Your task to perform on an android device: turn notification dots off Image 0: 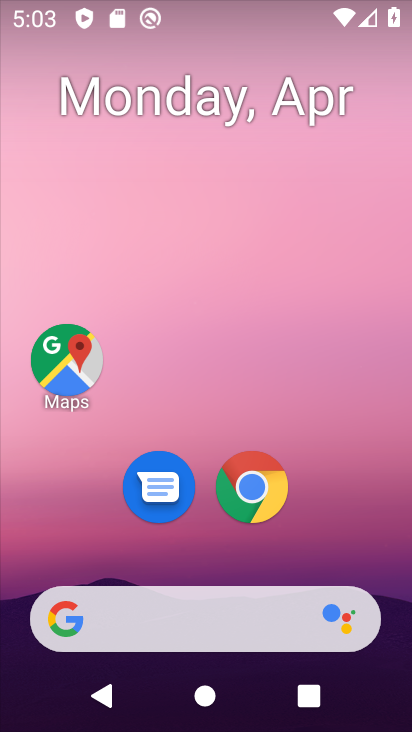
Step 0: drag from (349, 544) to (352, 104)
Your task to perform on an android device: turn notification dots off Image 1: 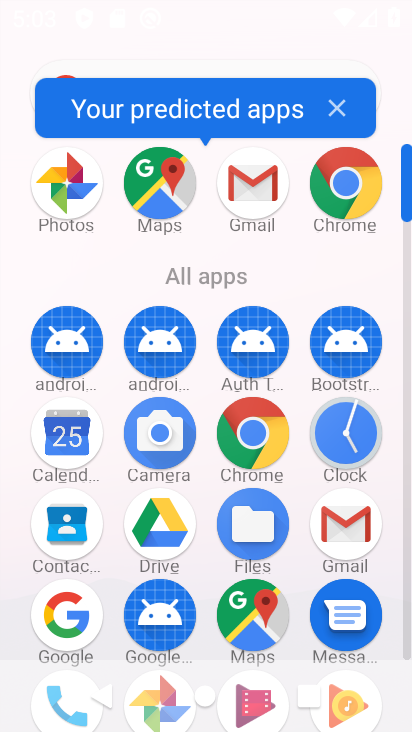
Step 1: click (408, 651)
Your task to perform on an android device: turn notification dots off Image 2: 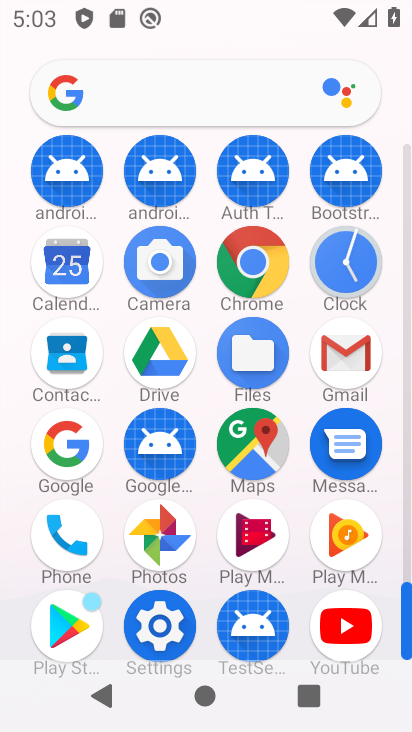
Step 2: click (166, 626)
Your task to perform on an android device: turn notification dots off Image 3: 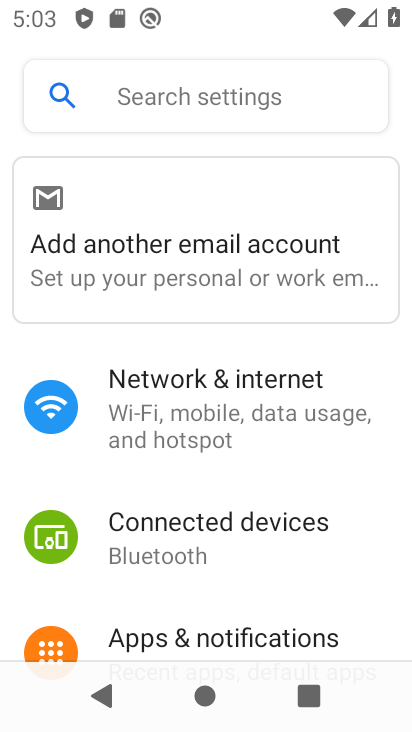
Step 3: click (296, 636)
Your task to perform on an android device: turn notification dots off Image 4: 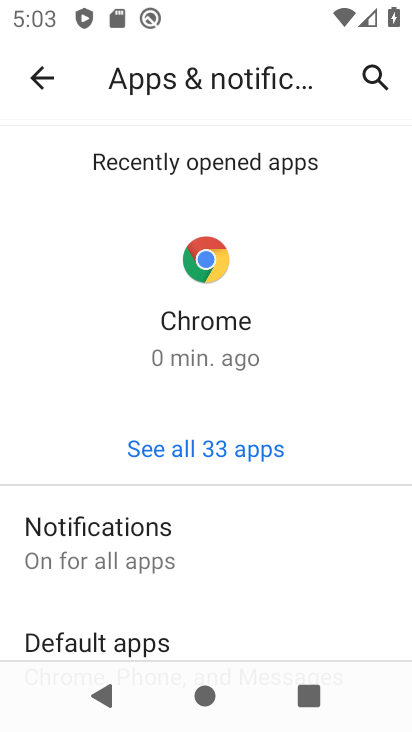
Step 4: drag from (346, 642) to (327, 230)
Your task to perform on an android device: turn notification dots off Image 5: 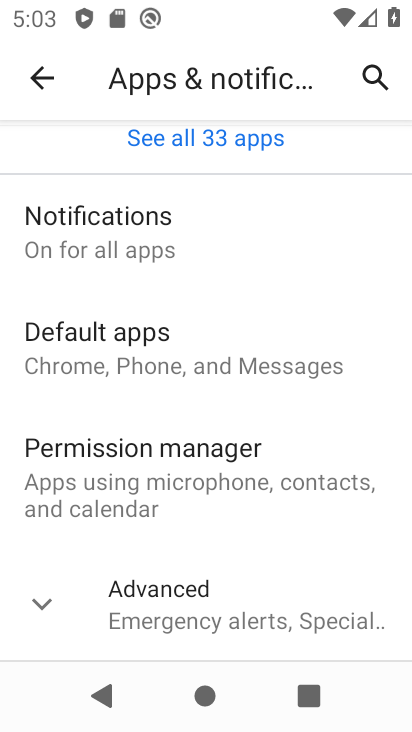
Step 5: drag from (314, 563) to (310, 338)
Your task to perform on an android device: turn notification dots off Image 6: 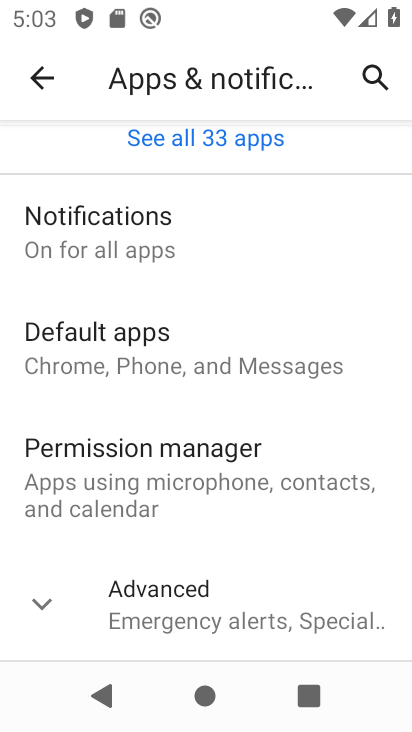
Step 6: click (238, 255)
Your task to perform on an android device: turn notification dots off Image 7: 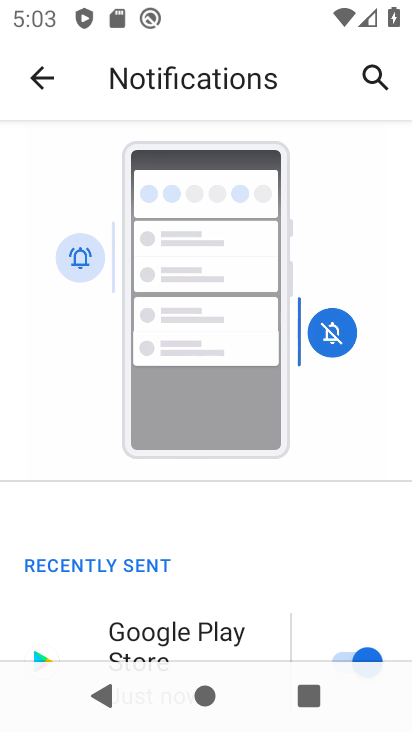
Step 7: drag from (211, 531) to (180, 56)
Your task to perform on an android device: turn notification dots off Image 8: 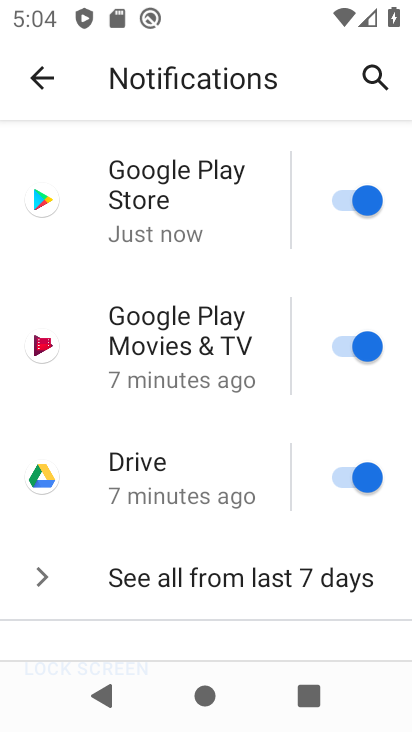
Step 8: drag from (219, 527) to (225, 33)
Your task to perform on an android device: turn notification dots off Image 9: 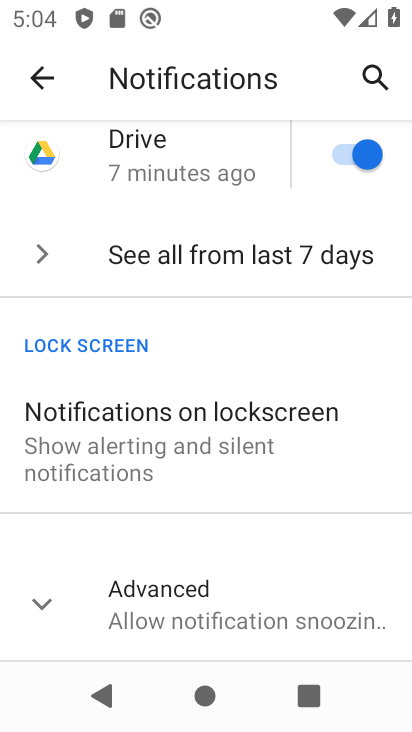
Step 9: click (260, 619)
Your task to perform on an android device: turn notification dots off Image 10: 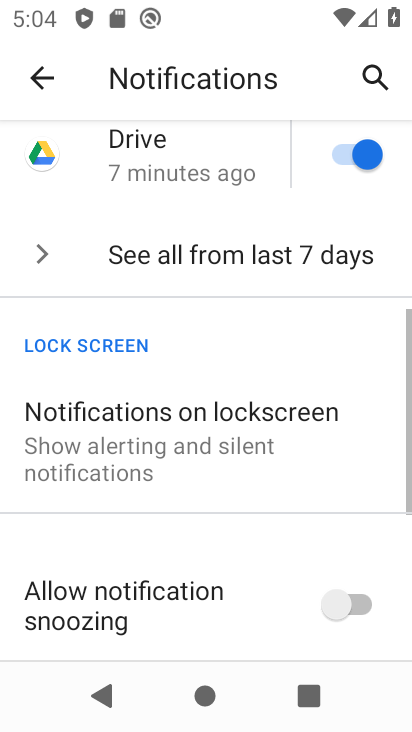
Step 10: drag from (264, 536) to (238, 71)
Your task to perform on an android device: turn notification dots off Image 11: 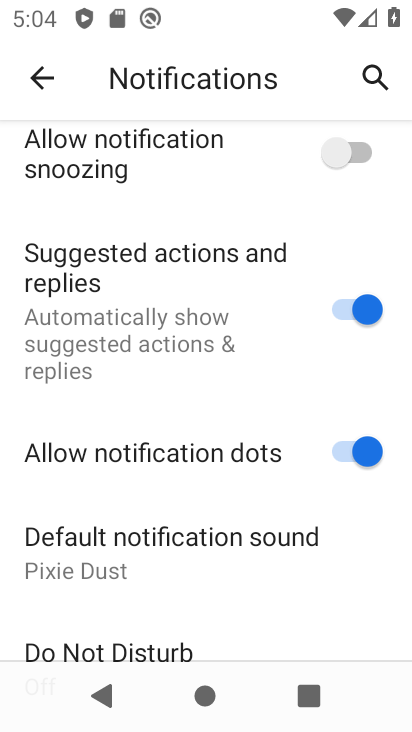
Step 11: click (353, 458)
Your task to perform on an android device: turn notification dots off Image 12: 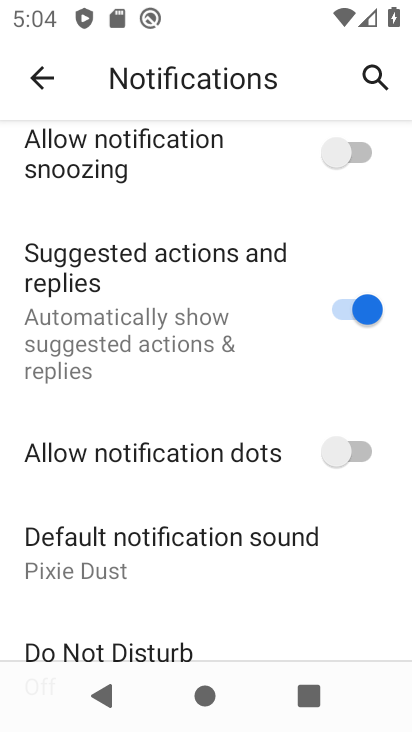
Step 12: task complete